Your task to perform on an android device: delete location history Image 0: 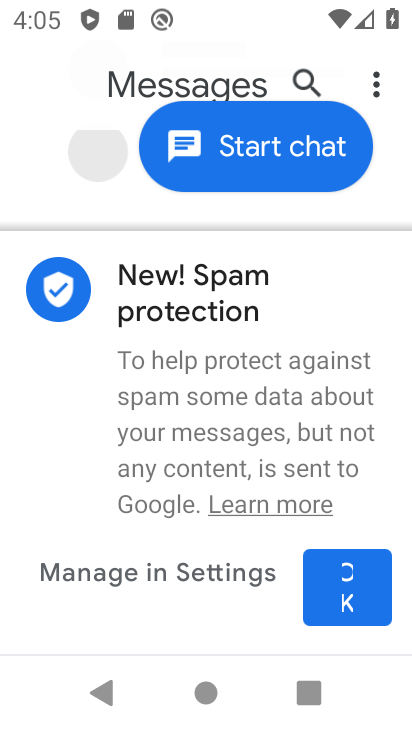
Step 0: press home button
Your task to perform on an android device: delete location history Image 1: 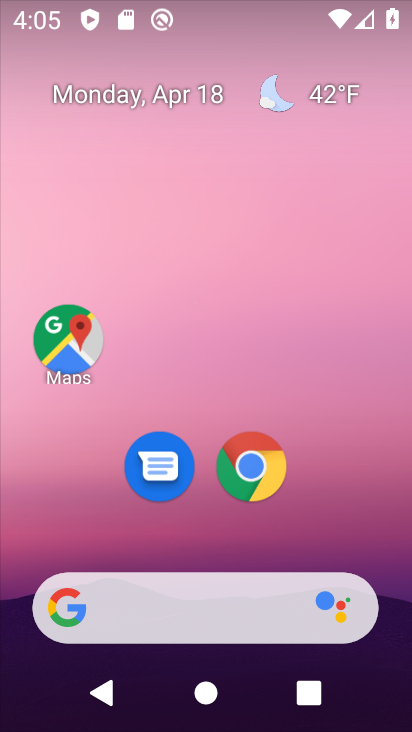
Step 1: click (58, 331)
Your task to perform on an android device: delete location history Image 2: 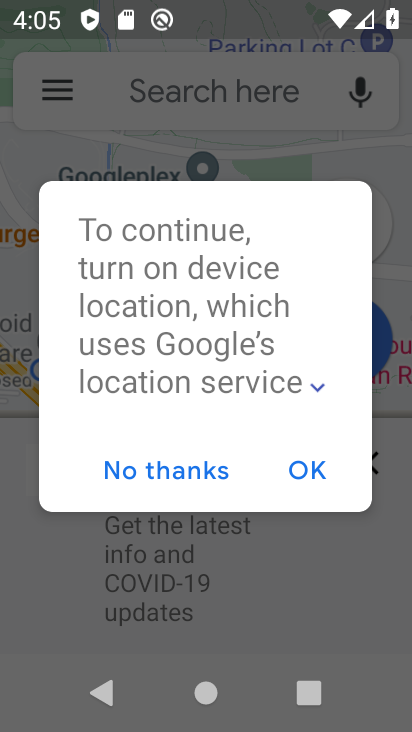
Step 2: click (316, 473)
Your task to perform on an android device: delete location history Image 3: 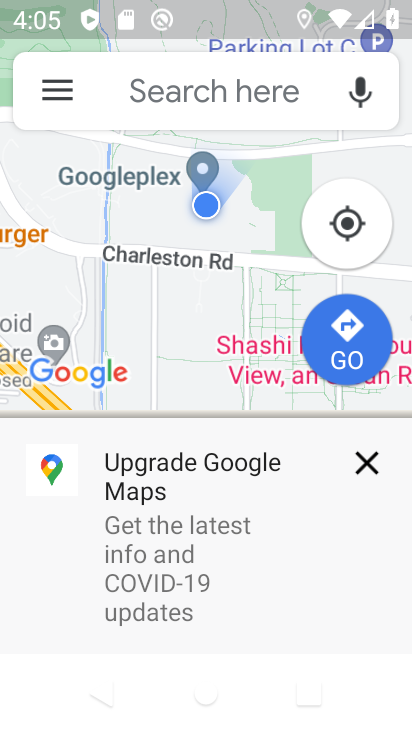
Step 3: click (52, 81)
Your task to perform on an android device: delete location history Image 4: 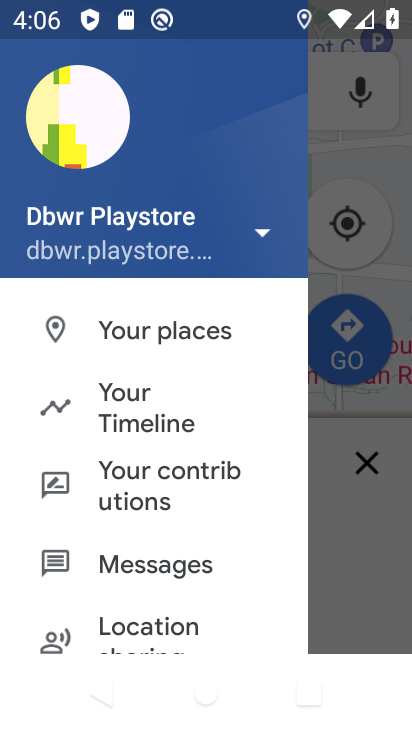
Step 4: drag from (266, 618) to (227, 114)
Your task to perform on an android device: delete location history Image 5: 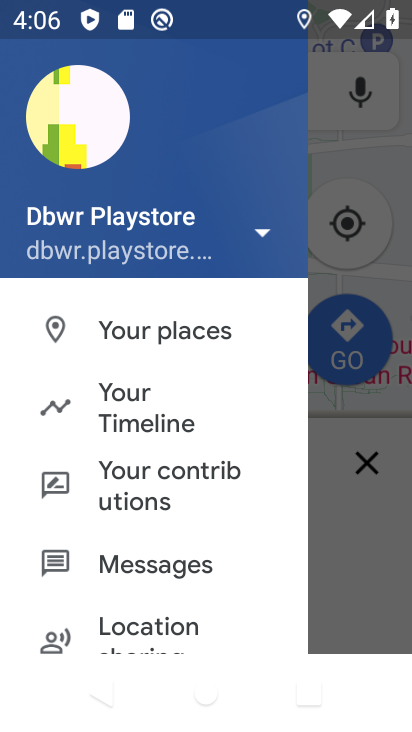
Step 5: drag from (224, 626) to (242, 48)
Your task to perform on an android device: delete location history Image 6: 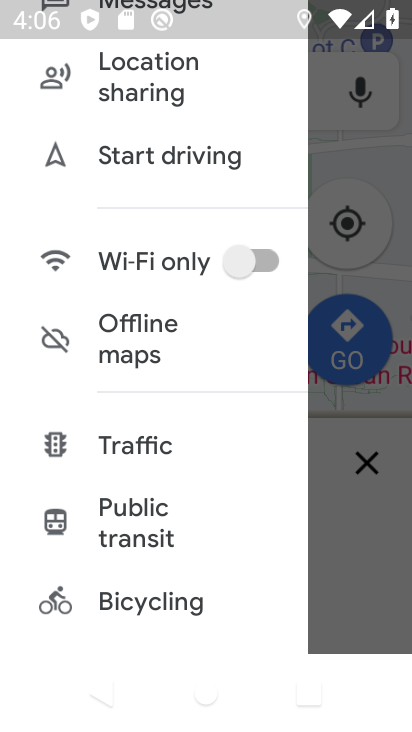
Step 6: drag from (202, 578) to (203, 167)
Your task to perform on an android device: delete location history Image 7: 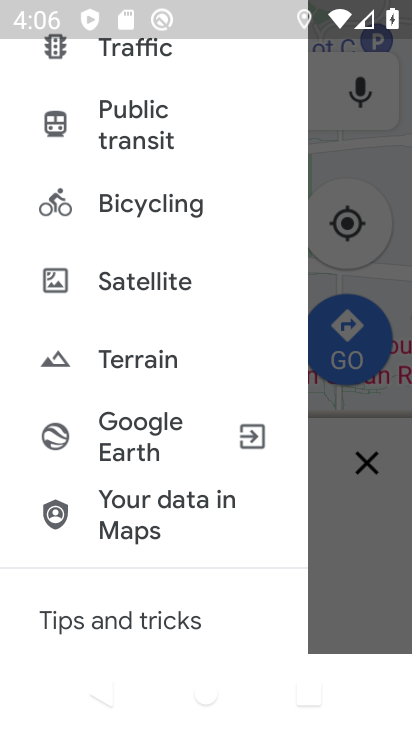
Step 7: drag from (199, 487) to (212, 48)
Your task to perform on an android device: delete location history Image 8: 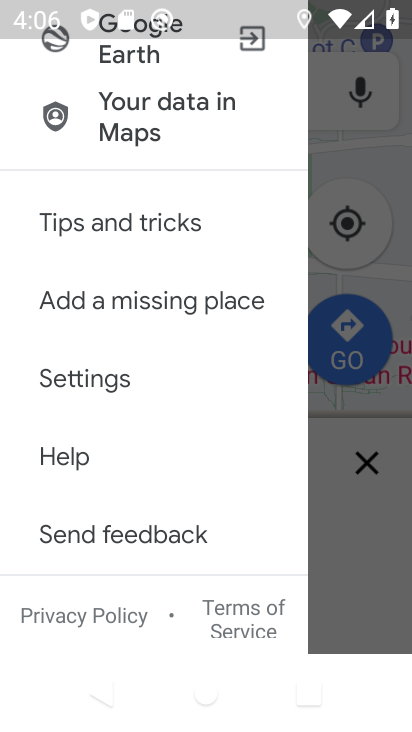
Step 8: click (75, 376)
Your task to perform on an android device: delete location history Image 9: 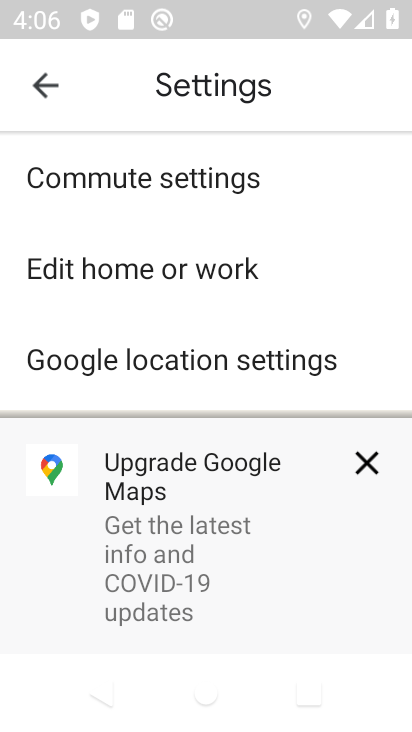
Step 9: click (364, 460)
Your task to perform on an android device: delete location history Image 10: 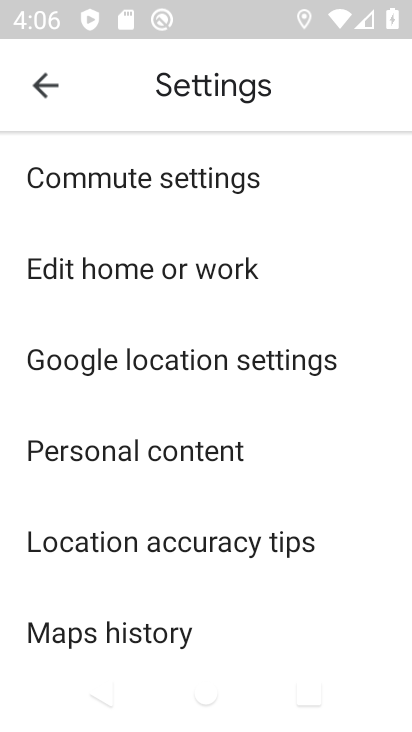
Step 10: click (106, 460)
Your task to perform on an android device: delete location history Image 11: 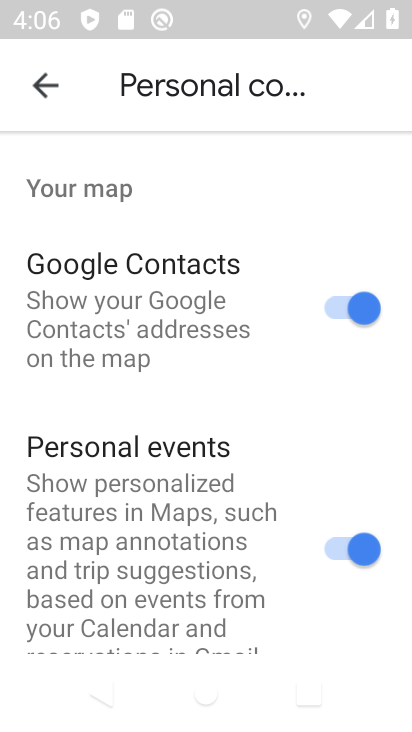
Step 11: drag from (283, 613) to (251, 329)
Your task to perform on an android device: delete location history Image 12: 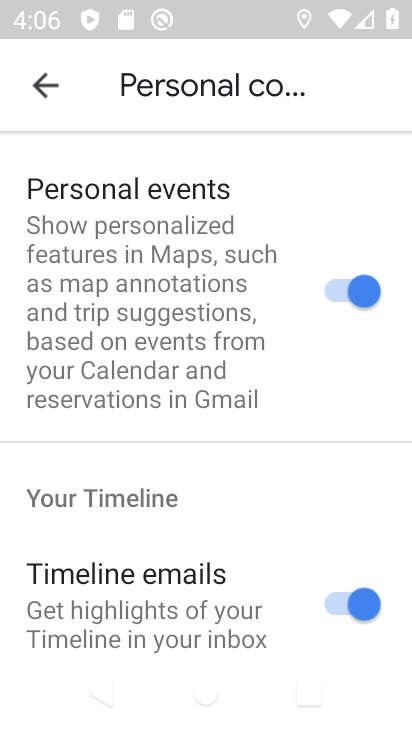
Step 12: drag from (288, 611) to (289, 169)
Your task to perform on an android device: delete location history Image 13: 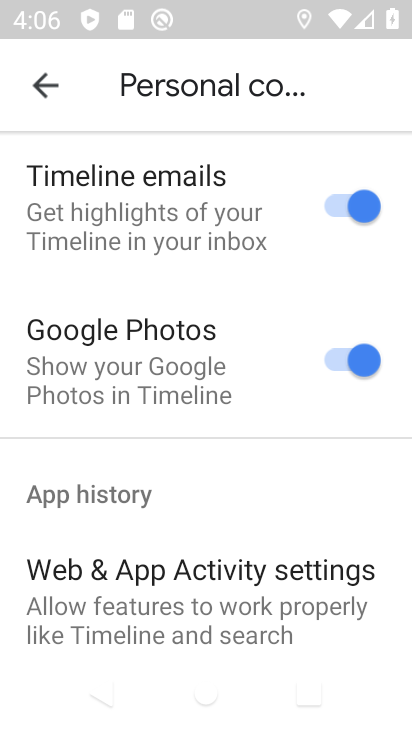
Step 13: drag from (287, 529) to (290, 145)
Your task to perform on an android device: delete location history Image 14: 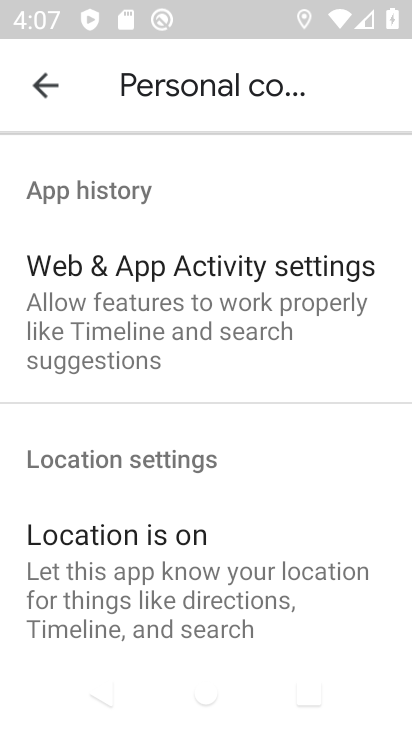
Step 14: drag from (239, 538) to (271, 140)
Your task to perform on an android device: delete location history Image 15: 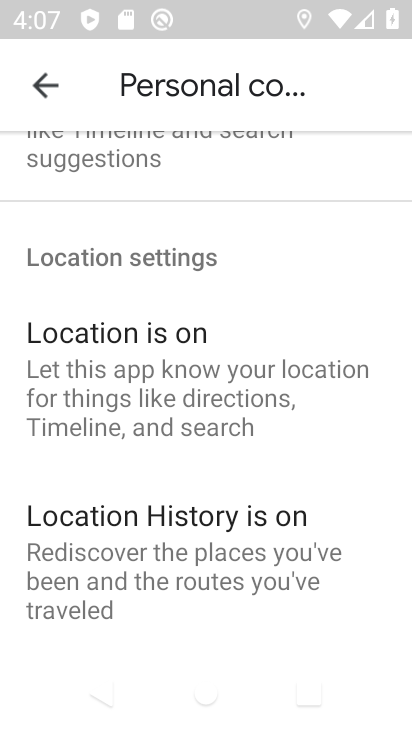
Step 15: drag from (277, 495) to (296, 150)
Your task to perform on an android device: delete location history Image 16: 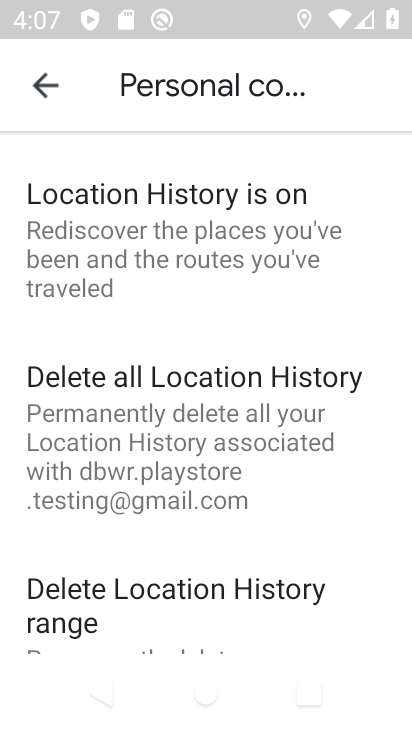
Step 16: click (90, 398)
Your task to perform on an android device: delete location history Image 17: 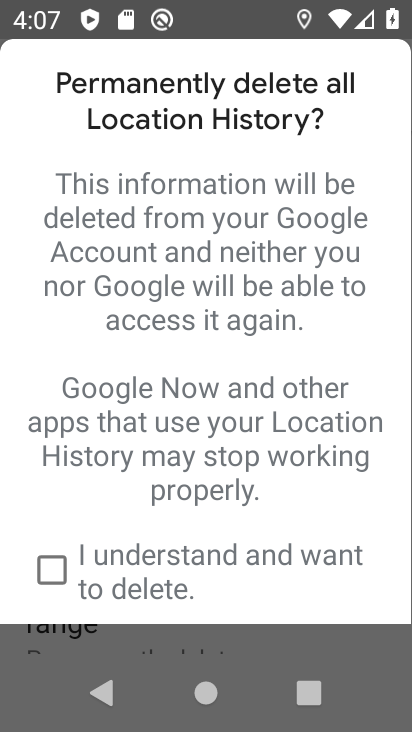
Step 17: click (52, 576)
Your task to perform on an android device: delete location history Image 18: 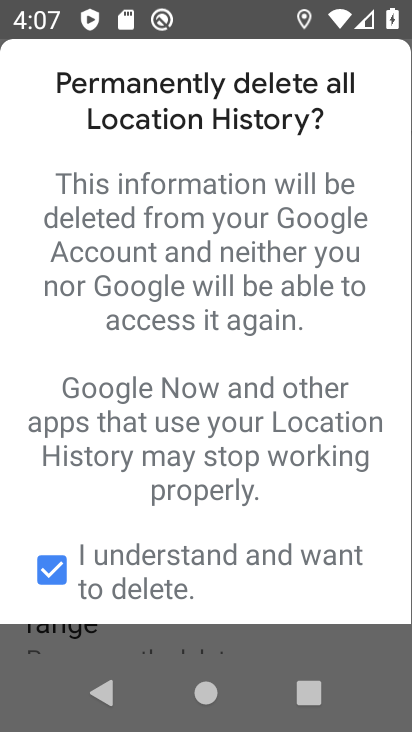
Step 18: task complete